Your task to perform on an android device: move a message to another label in the gmail app Image 0: 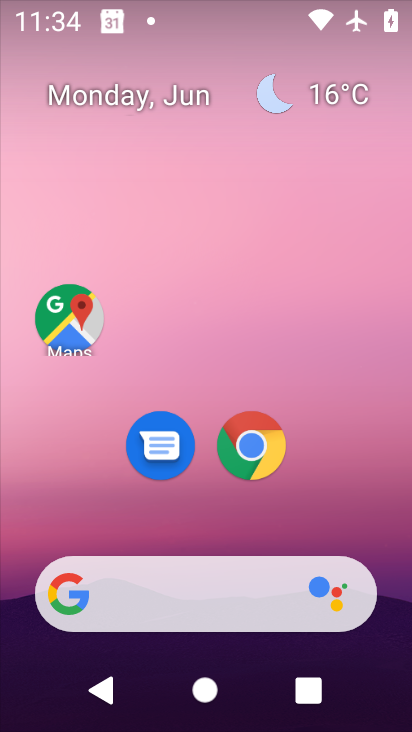
Step 0: press home button
Your task to perform on an android device: move a message to another label in the gmail app Image 1: 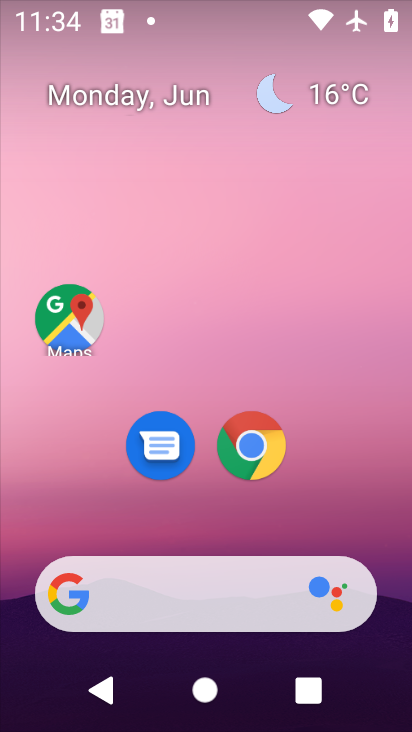
Step 1: drag from (348, 508) to (326, 29)
Your task to perform on an android device: move a message to another label in the gmail app Image 2: 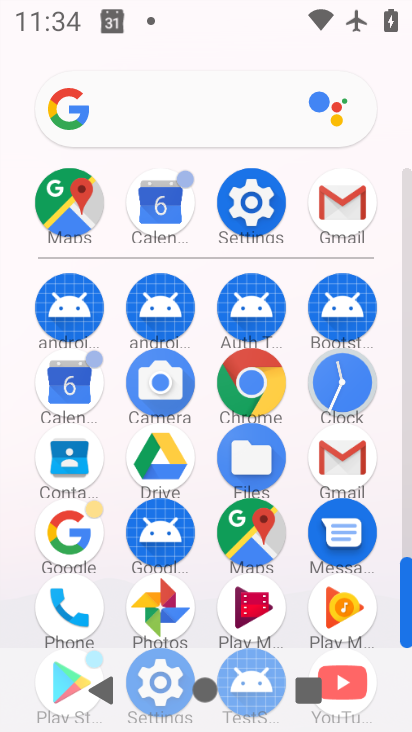
Step 2: click (346, 208)
Your task to perform on an android device: move a message to another label in the gmail app Image 3: 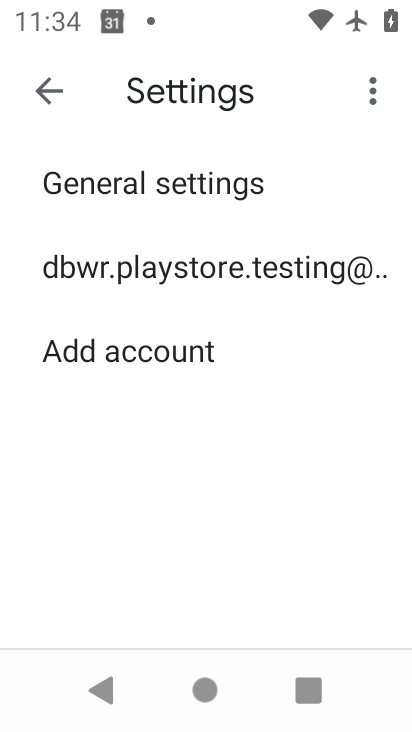
Step 3: click (185, 270)
Your task to perform on an android device: move a message to another label in the gmail app Image 4: 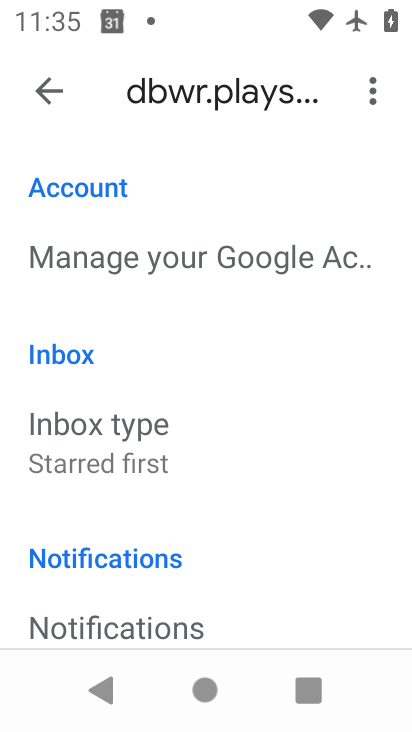
Step 4: click (39, 93)
Your task to perform on an android device: move a message to another label in the gmail app Image 5: 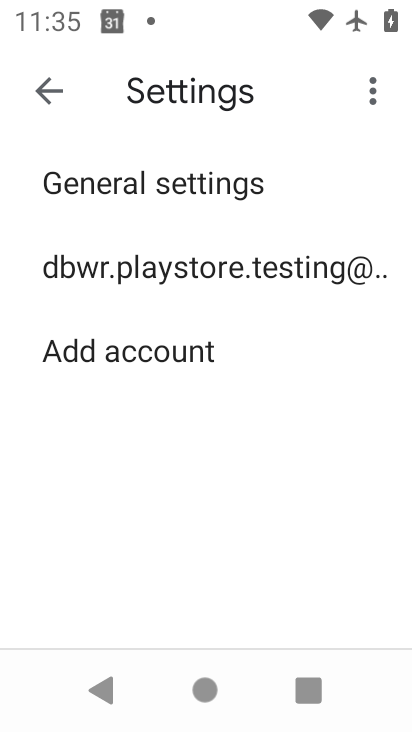
Step 5: click (42, 95)
Your task to perform on an android device: move a message to another label in the gmail app Image 6: 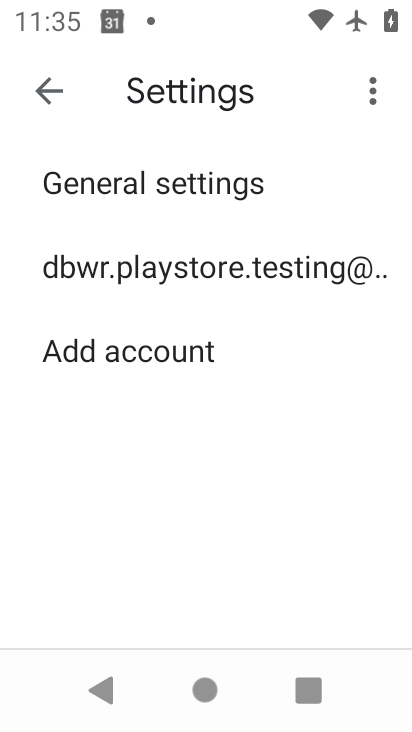
Step 6: click (42, 88)
Your task to perform on an android device: move a message to another label in the gmail app Image 7: 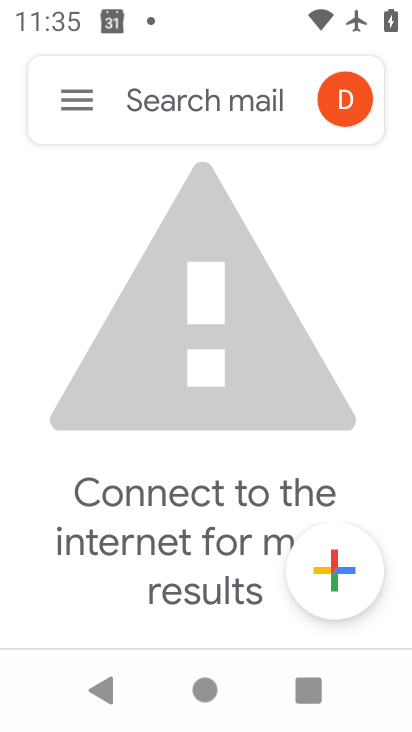
Step 7: click (71, 109)
Your task to perform on an android device: move a message to another label in the gmail app Image 8: 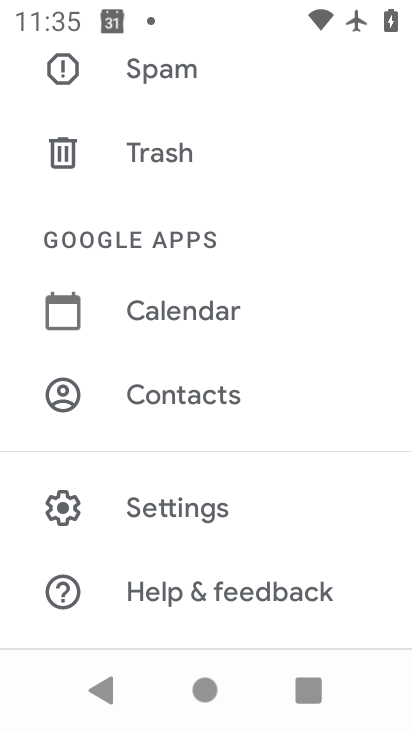
Step 8: drag from (272, 497) to (273, 729)
Your task to perform on an android device: move a message to another label in the gmail app Image 9: 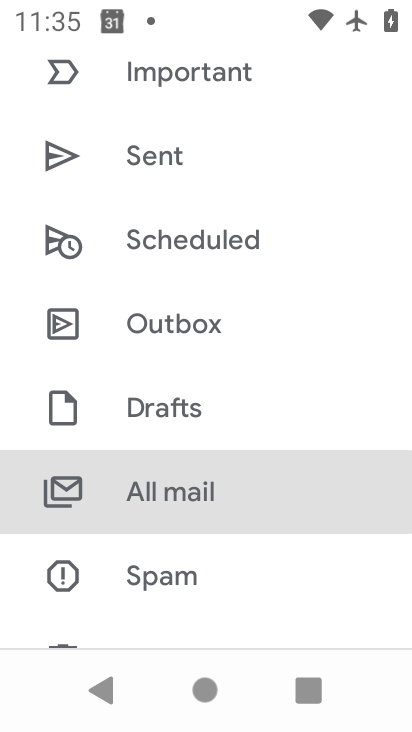
Step 9: click (180, 489)
Your task to perform on an android device: move a message to another label in the gmail app Image 10: 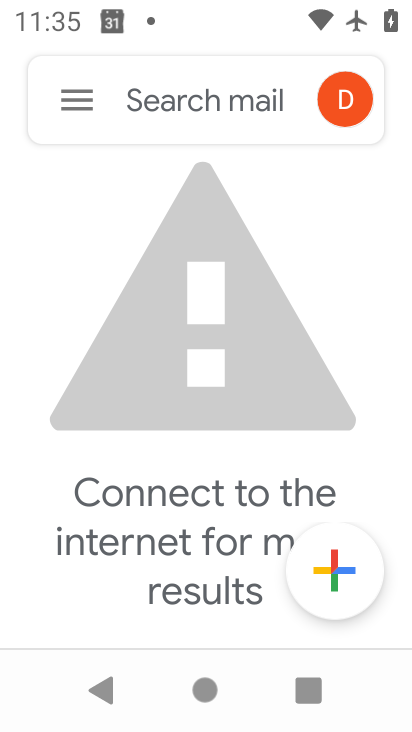
Step 10: task complete